Your task to perform on an android device: Open location settings Image 0: 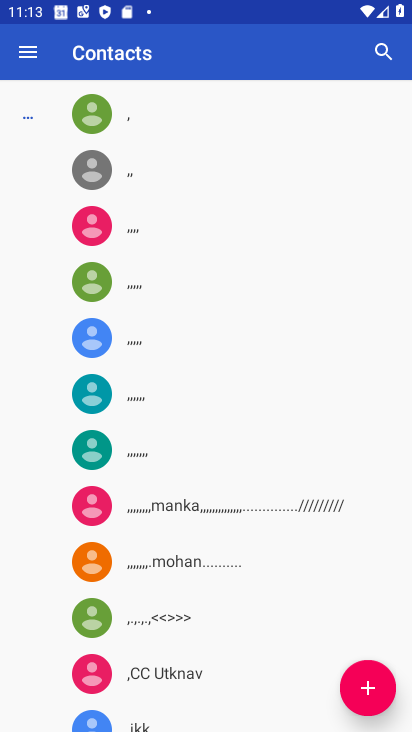
Step 0: press home button
Your task to perform on an android device: Open location settings Image 1: 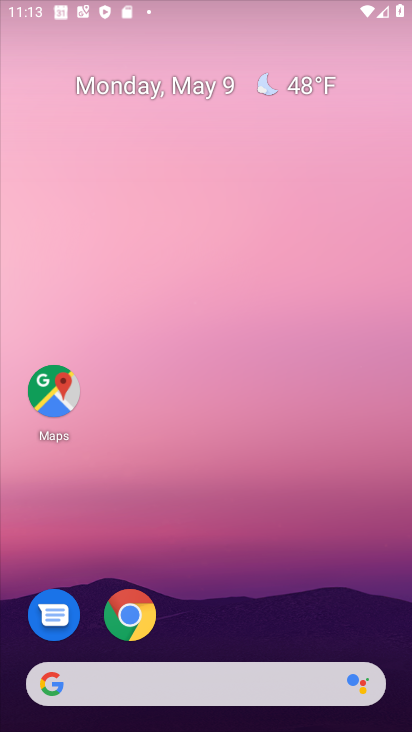
Step 1: drag from (259, 541) to (207, 28)
Your task to perform on an android device: Open location settings Image 2: 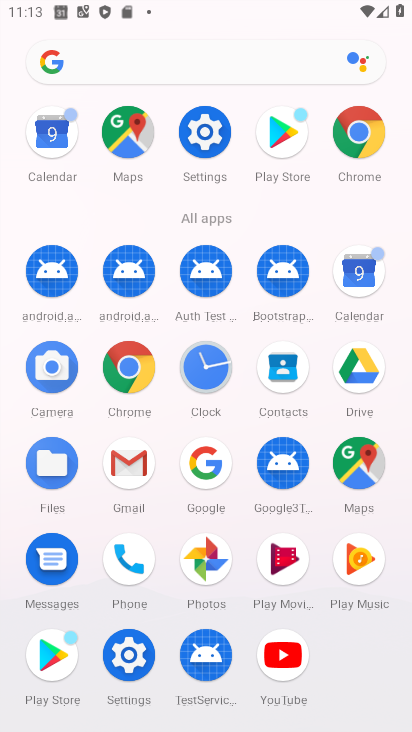
Step 2: click (203, 142)
Your task to perform on an android device: Open location settings Image 3: 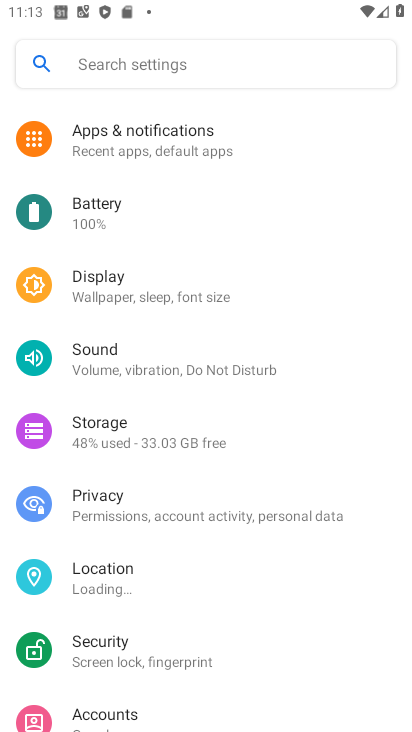
Step 3: click (205, 583)
Your task to perform on an android device: Open location settings Image 4: 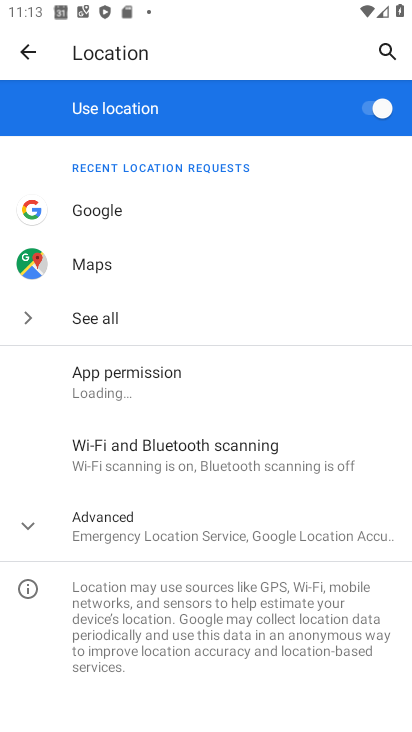
Step 4: task complete